Your task to perform on an android device: turn off priority inbox in the gmail app Image 0: 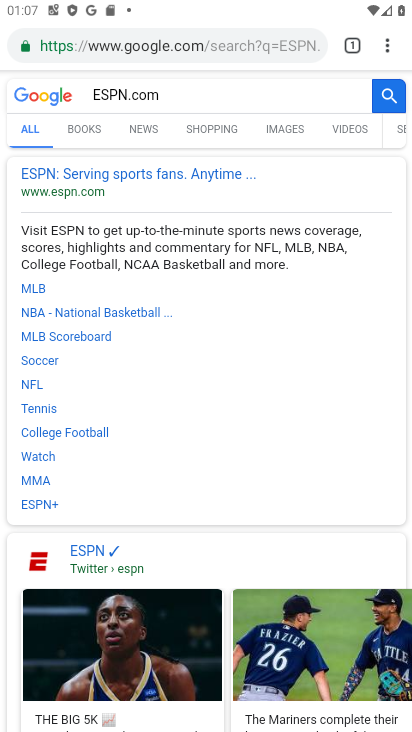
Step 0: press home button
Your task to perform on an android device: turn off priority inbox in the gmail app Image 1: 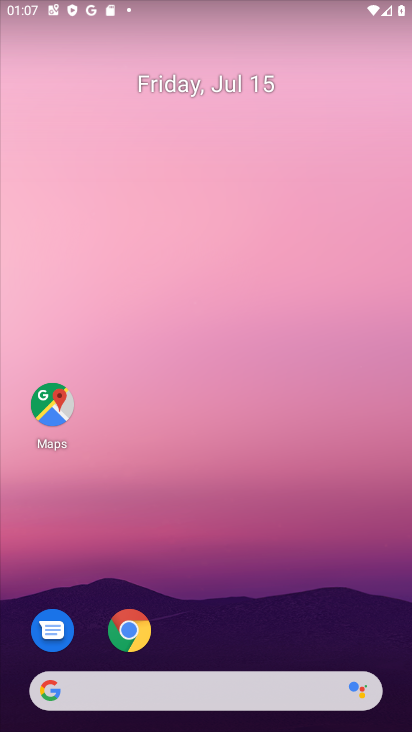
Step 1: drag from (311, 581) to (299, 54)
Your task to perform on an android device: turn off priority inbox in the gmail app Image 2: 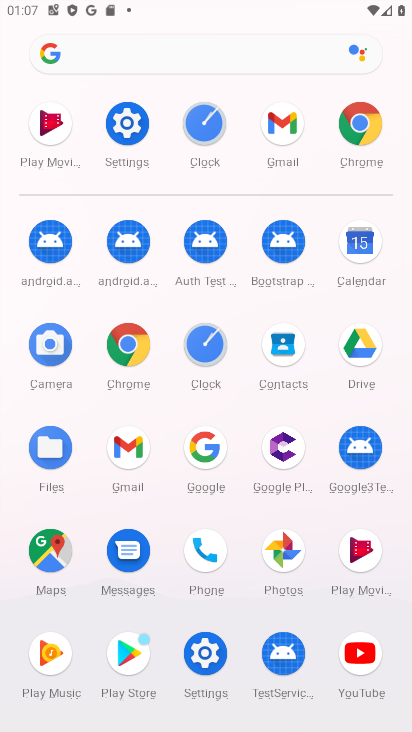
Step 2: click (281, 113)
Your task to perform on an android device: turn off priority inbox in the gmail app Image 3: 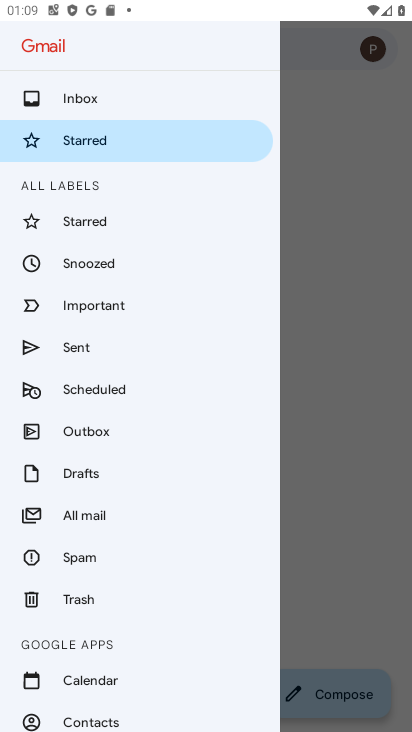
Step 3: task complete